Your task to perform on an android device: turn off airplane mode Image 0: 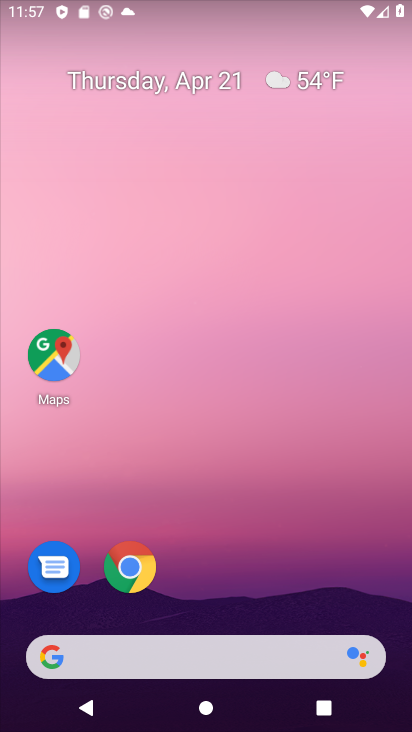
Step 0: drag from (215, 603) to (275, 80)
Your task to perform on an android device: turn off airplane mode Image 1: 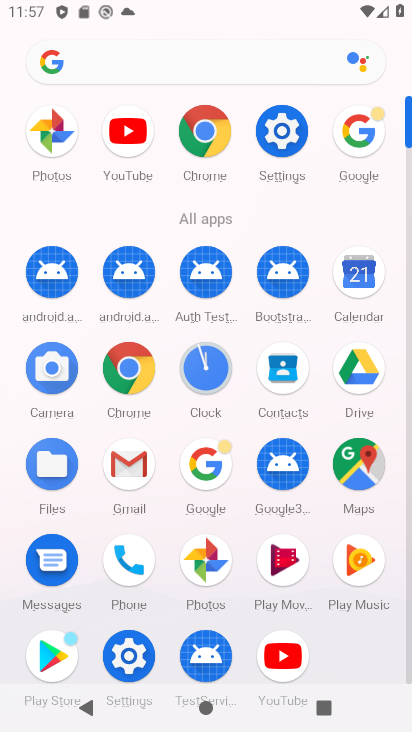
Step 1: click (292, 154)
Your task to perform on an android device: turn off airplane mode Image 2: 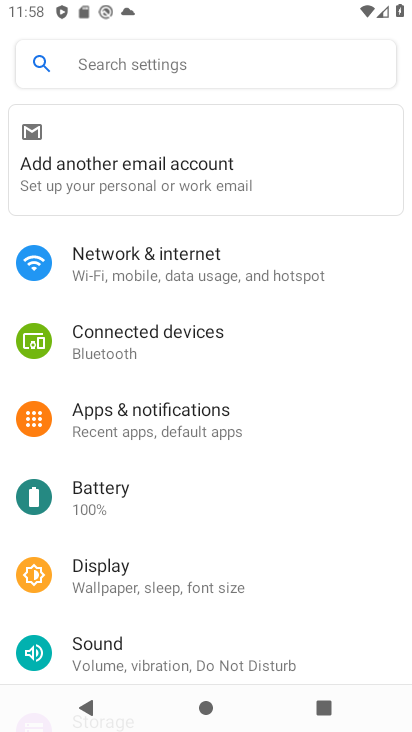
Step 2: click (249, 261)
Your task to perform on an android device: turn off airplane mode Image 3: 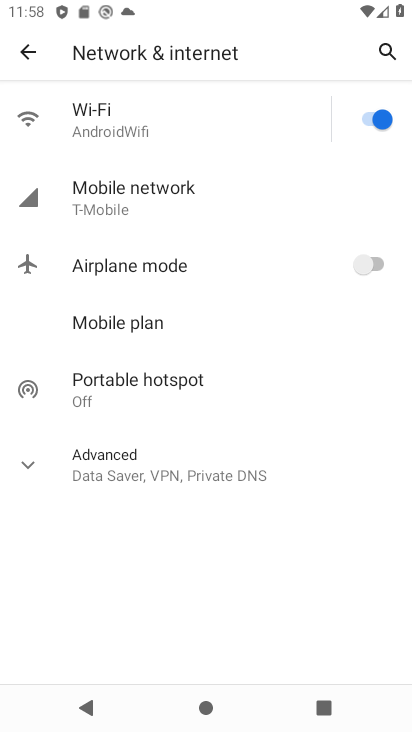
Step 3: task complete